Your task to perform on an android device: Open display settings Image 0: 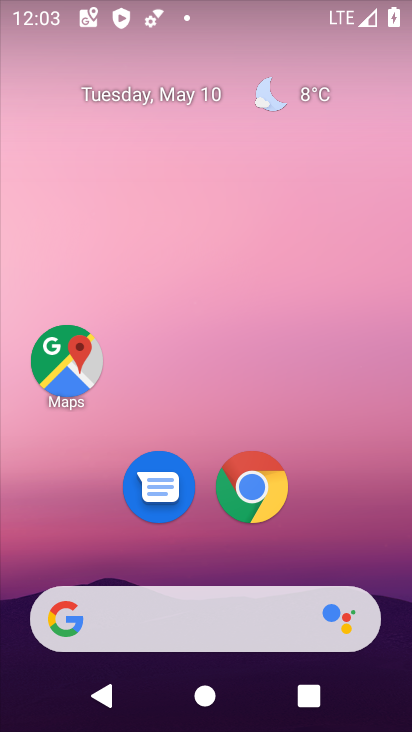
Step 0: drag from (201, 556) to (214, 65)
Your task to perform on an android device: Open display settings Image 1: 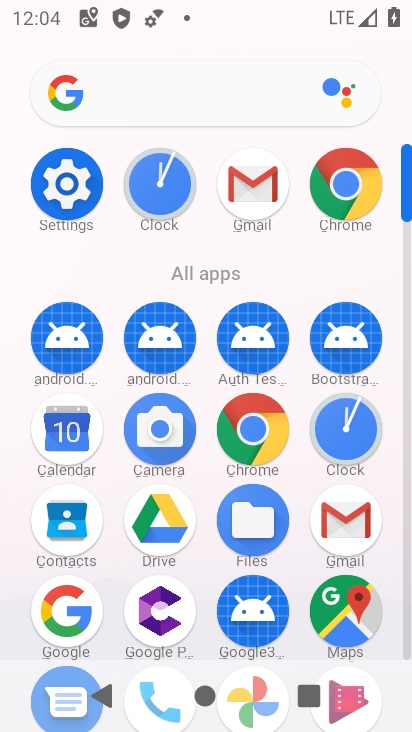
Step 1: click (59, 176)
Your task to perform on an android device: Open display settings Image 2: 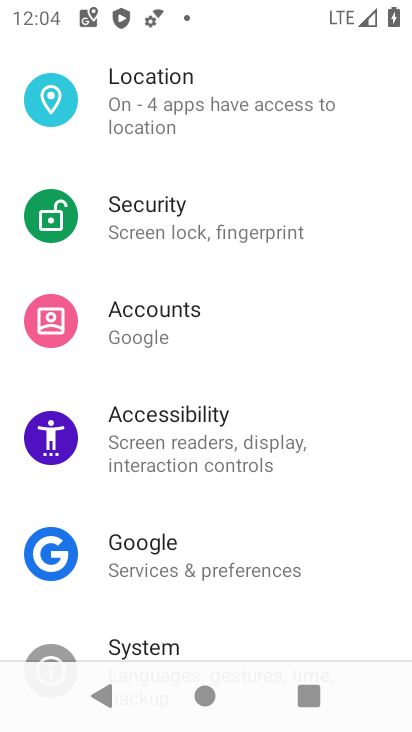
Step 2: drag from (168, 125) to (154, 653)
Your task to perform on an android device: Open display settings Image 3: 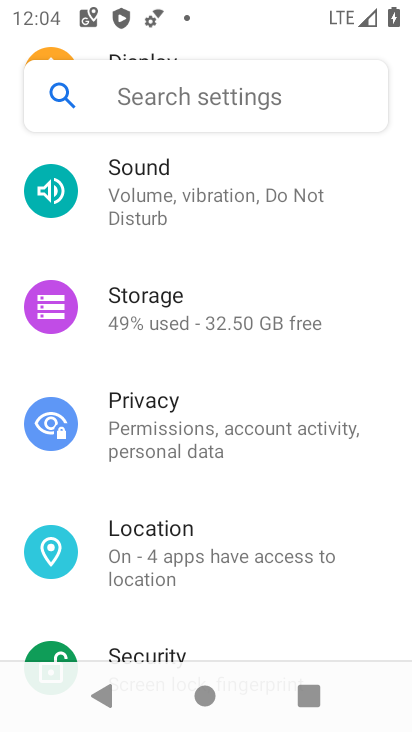
Step 3: drag from (153, 191) to (163, 601)
Your task to perform on an android device: Open display settings Image 4: 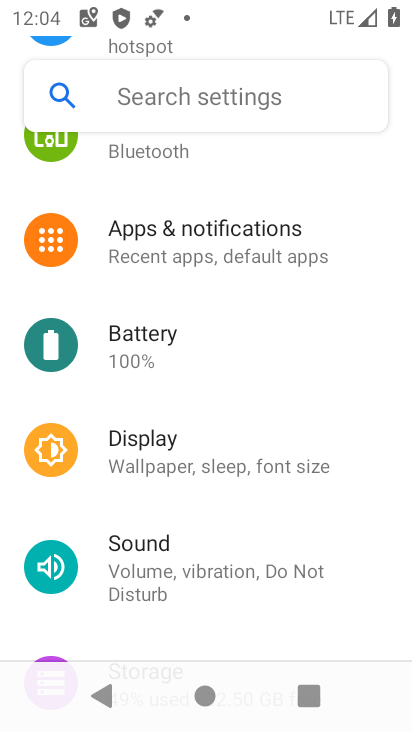
Step 4: click (97, 436)
Your task to perform on an android device: Open display settings Image 5: 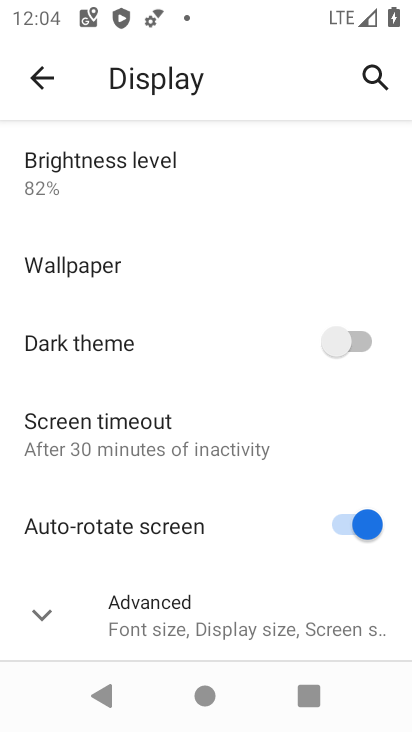
Step 5: click (47, 606)
Your task to perform on an android device: Open display settings Image 6: 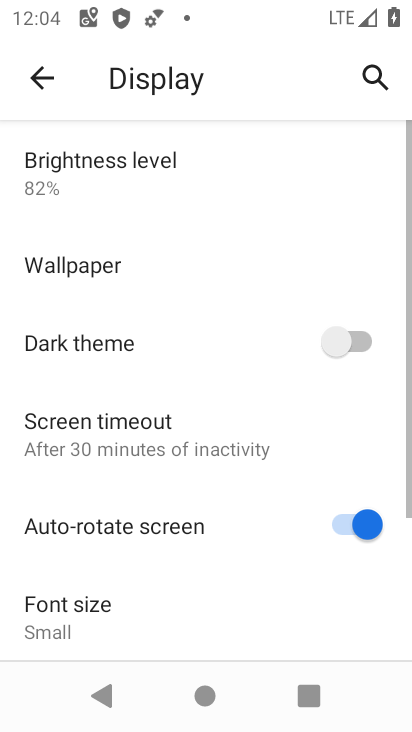
Step 6: task complete